Your task to perform on an android device: Go to wifi settings Image 0: 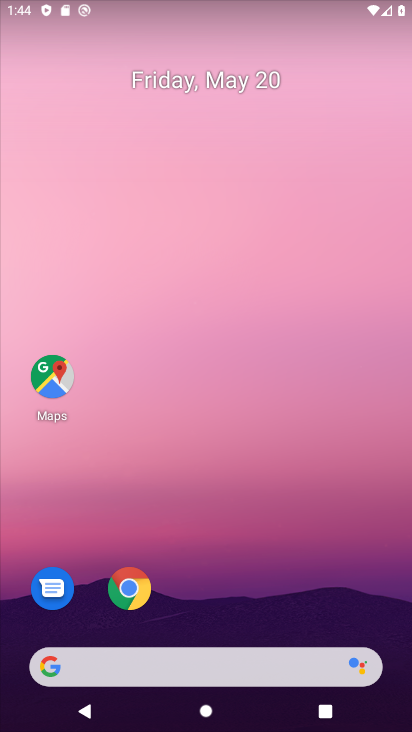
Step 0: drag from (183, 656) to (238, 235)
Your task to perform on an android device: Go to wifi settings Image 1: 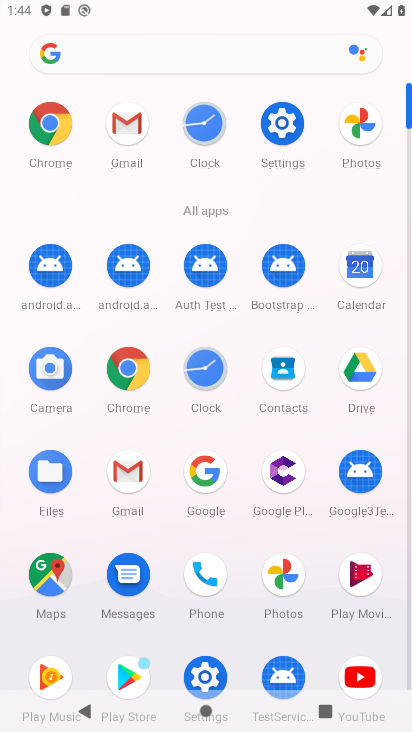
Step 1: click (295, 114)
Your task to perform on an android device: Go to wifi settings Image 2: 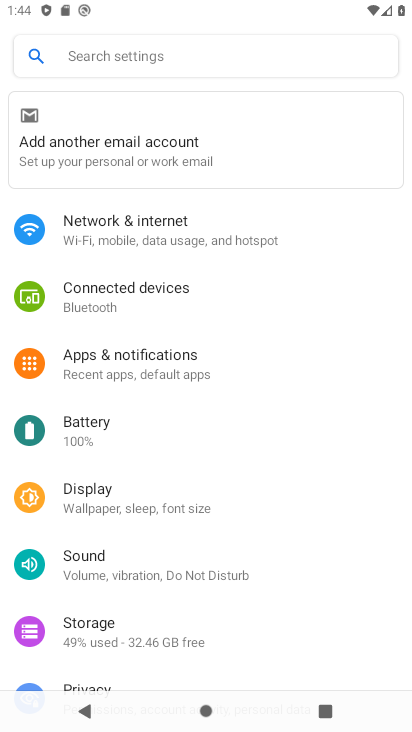
Step 2: click (126, 223)
Your task to perform on an android device: Go to wifi settings Image 3: 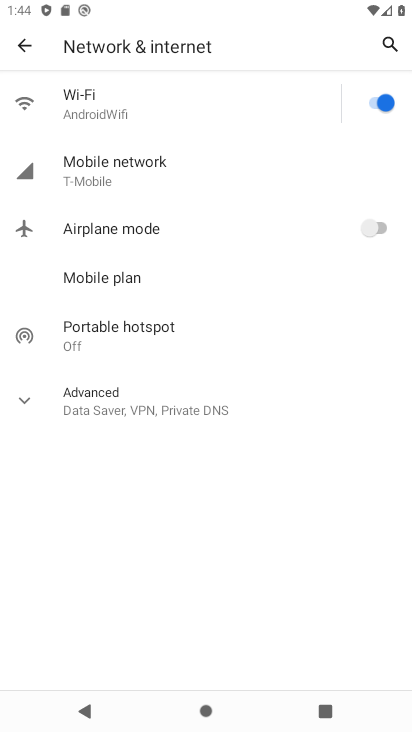
Step 3: click (88, 115)
Your task to perform on an android device: Go to wifi settings Image 4: 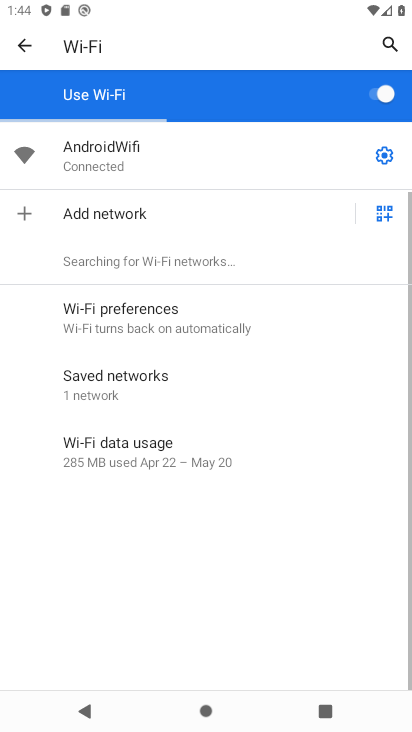
Step 4: task complete